Your task to perform on an android device: toggle airplane mode Image 0: 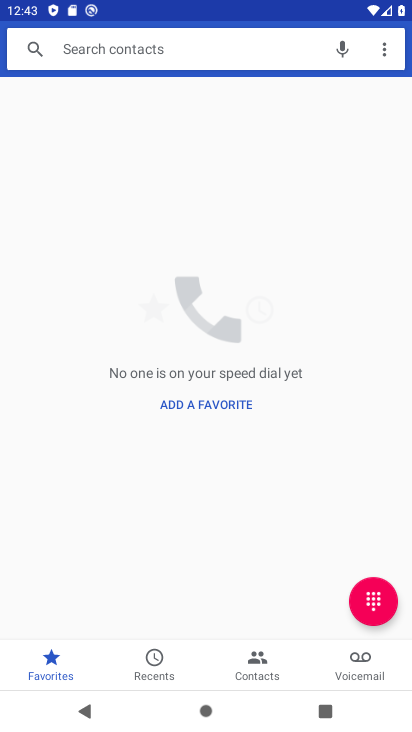
Step 0: press home button
Your task to perform on an android device: toggle airplane mode Image 1: 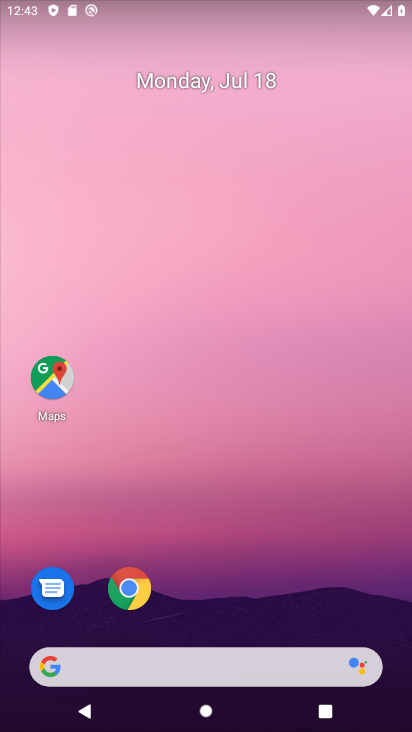
Step 1: drag from (273, 595) to (320, 126)
Your task to perform on an android device: toggle airplane mode Image 2: 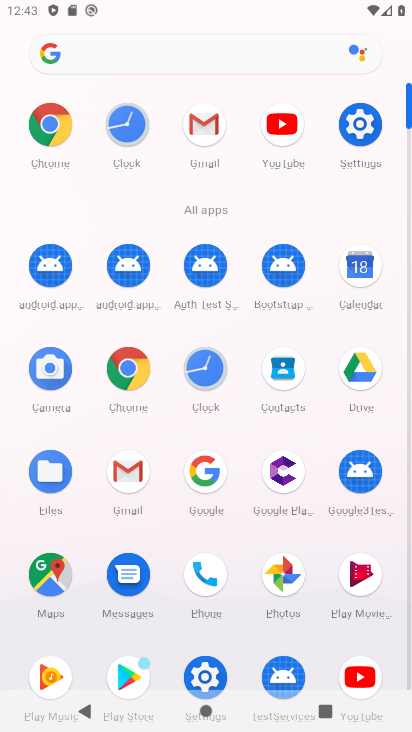
Step 2: click (359, 125)
Your task to perform on an android device: toggle airplane mode Image 3: 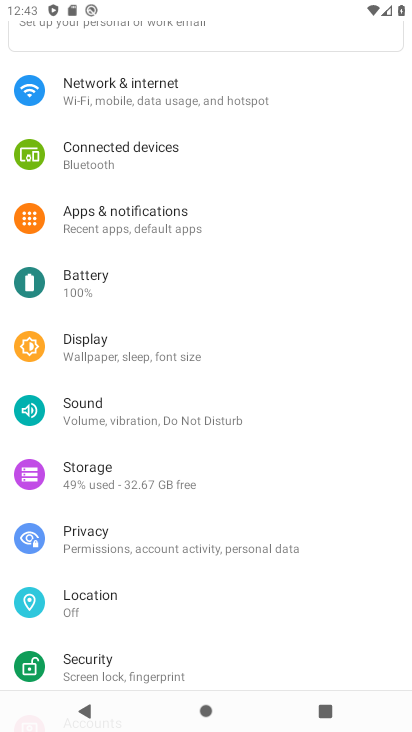
Step 3: click (128, 89)
Your task to perform on an android device: toggle airplane mode Image 4: 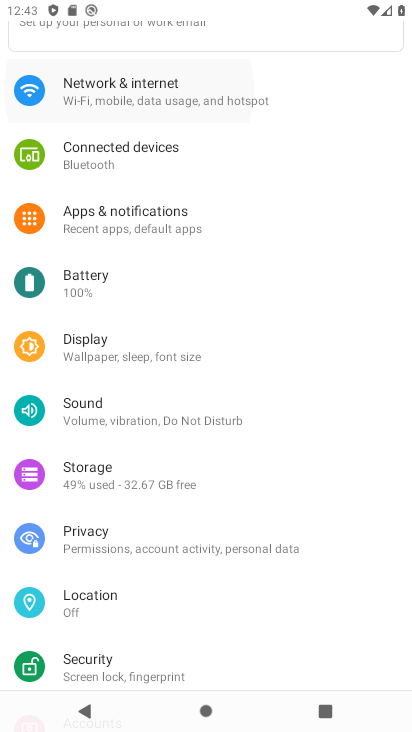
Step 4: click (128, 89)
Your task to perform on an android device: toggle airplane mode Image 5: 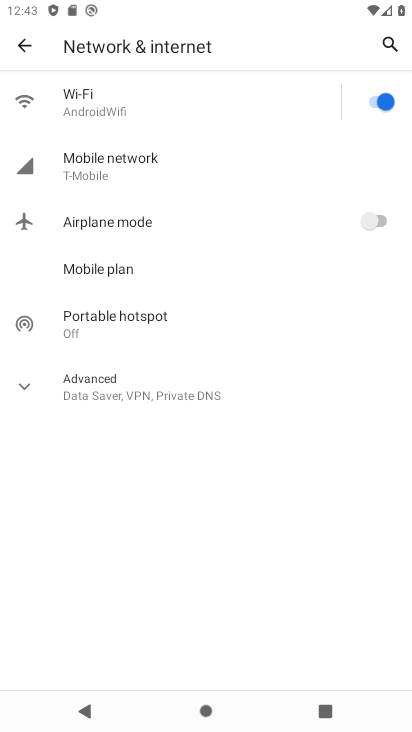
Step 5: click (392, 220)
Your task to perform on an android device: toggle airplane mode Image 6: 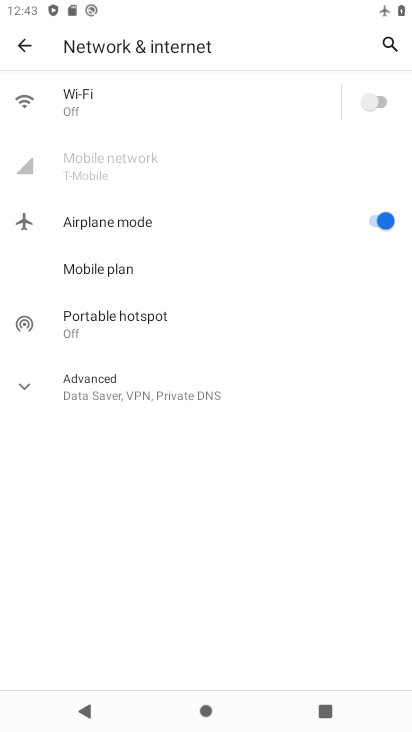
Step 6: task complete